Your task to perform on an android device: toggle priority inbox in the gmail app Image 0: 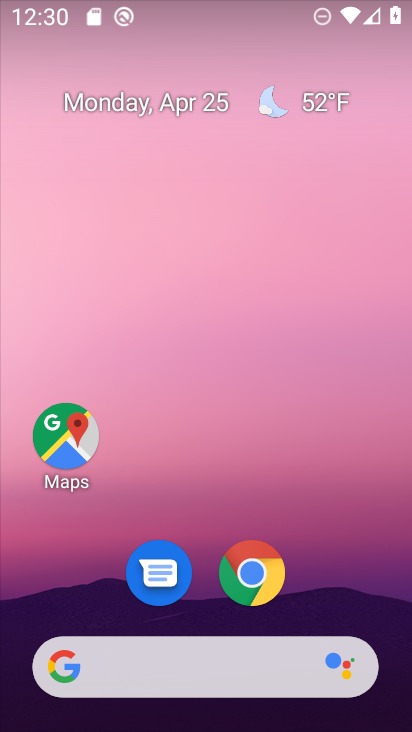
Step 0: drag from (216, 663) to (216, 110)
Your task to perform on an android device: toggle priority inbox in the gmail app Image 1: 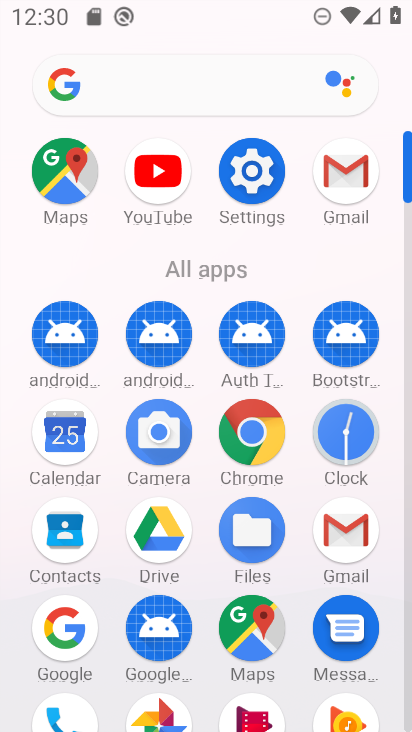
Step 1: click (335, 172)
Your task to perform on an android device: toggle priority inbox in the gmail app Image 2: 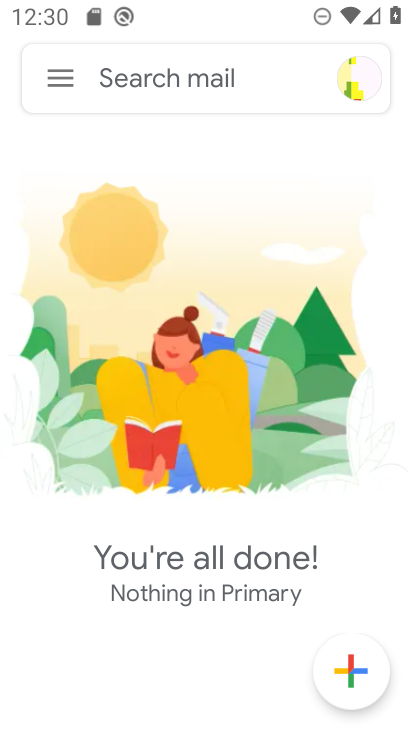
Step 2: click (57, 91)
Your task to perform on an android device: toggle priority inbox in the gmail app Image 3: 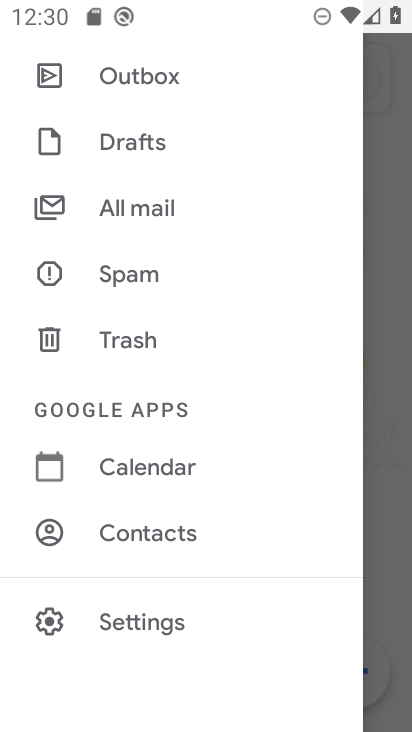
Step 3: click (141, 623)
Your task to perform on an android device: toggle priority inbox in the gmail app Image 4: 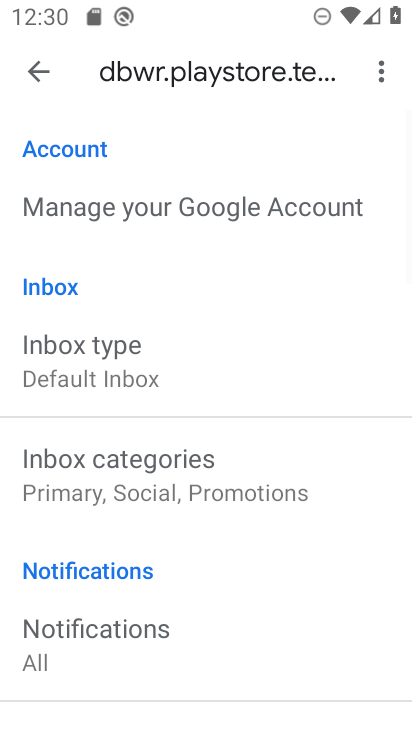
Step 4: click (90, 371)
Your task to perform on an android device: toggle priority inbox in the gmail app Image 5: 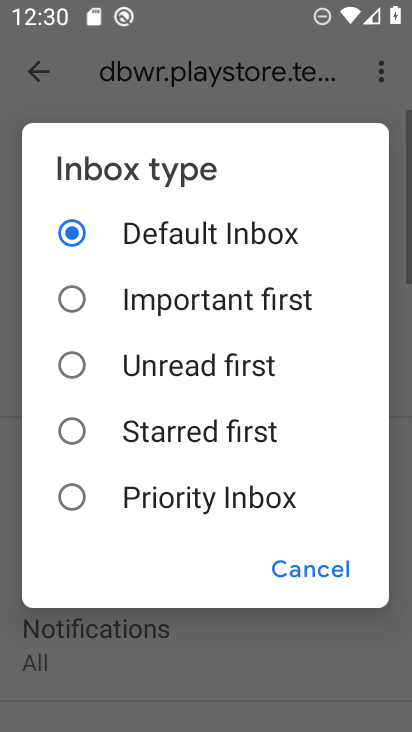
Step 5: click (67, 300)
Your task to perform on an android device: toggle priority inbox in the gmail app Image 6: 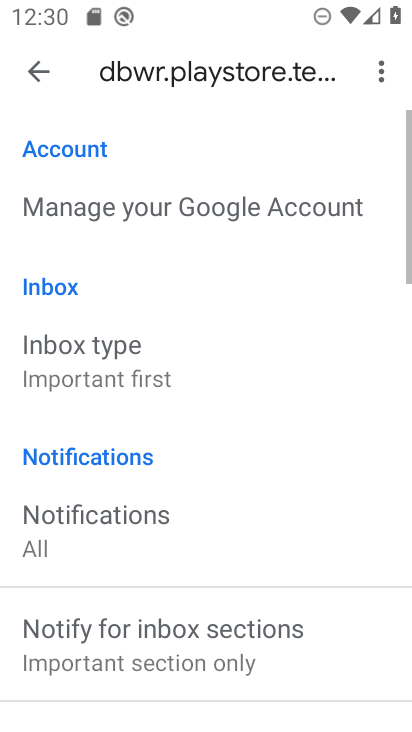
Step 6: task complete